Your task to perform on an android device: turn off priority inbox in the gmail app Image 0: 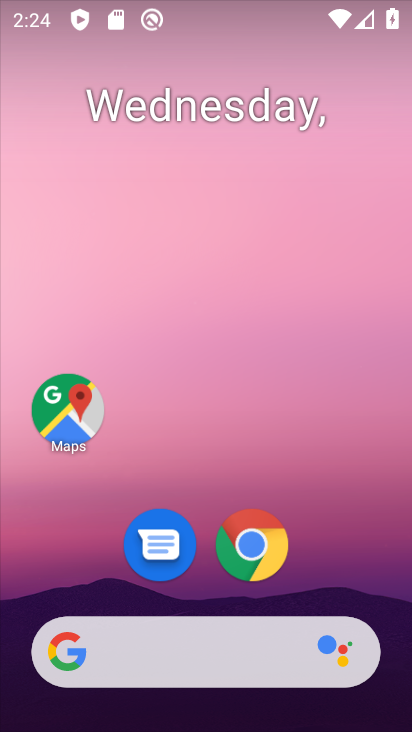
Step 0: press home button
Your task to perform on an android device: turn off priority inbox in the gmail app Image 1: 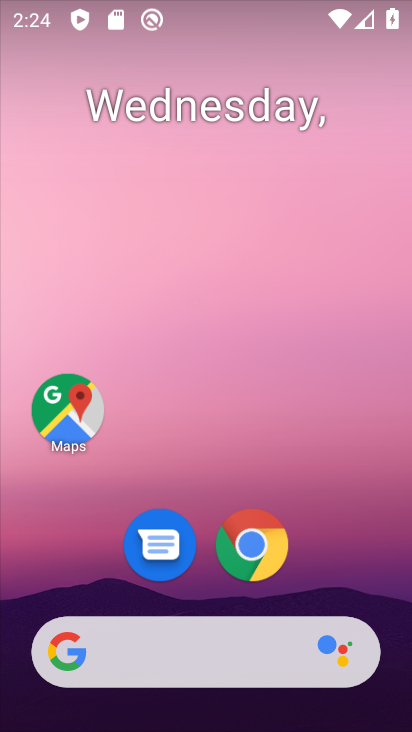
Step 1: drag from (143, 648) to (293, 157)
Your task to perform on an android device: turn off priority inbox in the gmail app Image 2: 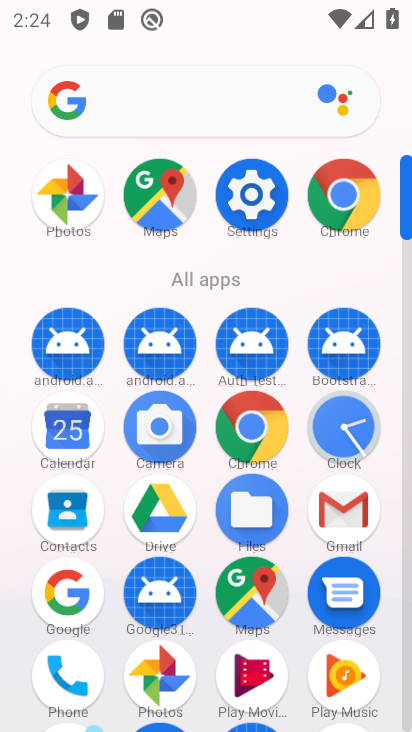
Step 2: click (346, 519)
Your task to perform on an android device: turn off priority inbox in the gmail app Image 3: 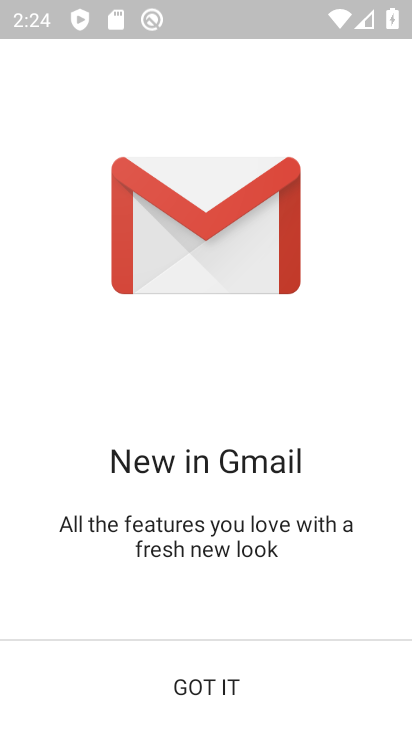
Step 3: click (202, 676)
Your task to perform on an android device: turn off priority inbox in the gmail app Image 4: 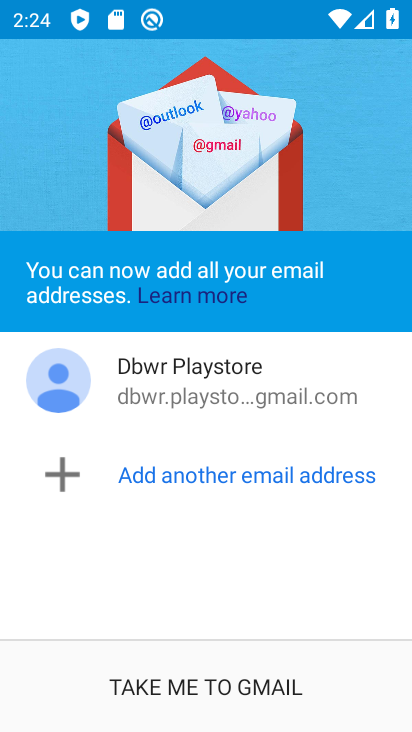
Step 4: click (202, 675)
Your task to perform on an android device: turn off priority inbox in the gmail app Image 5: 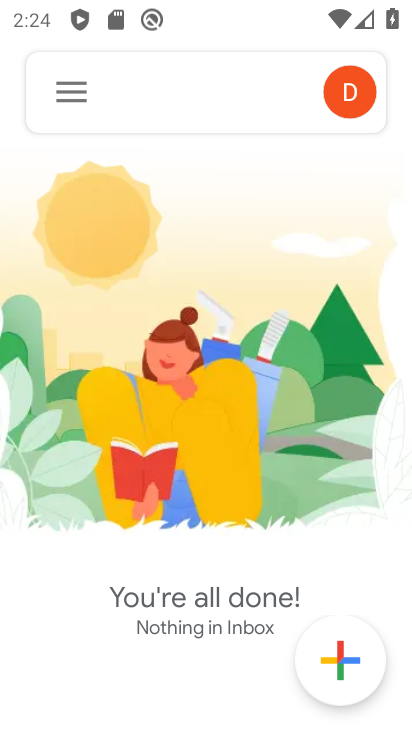
Step 5: click (67, 99)
Your task to perform on an android device: turn off priority inbox in the gmail app Image 6: 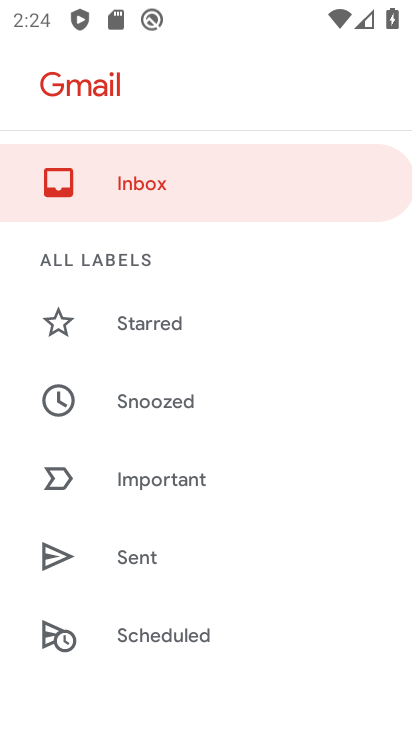
Step 6: drag from (229, 620) to (360, 166)
Your task to perform on an android device: turn off priority inbox in the gmail app Image 7: 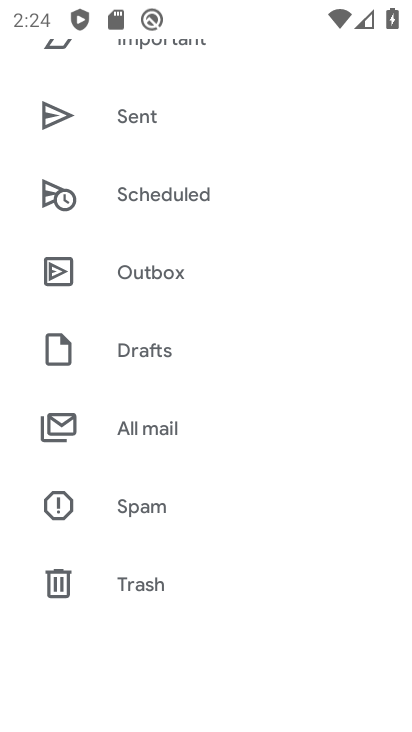
Step 7: drag from (189, 613) to (305, 204)
Your task to perform on an android device: turn off priority inbox in the gmail app Image 8: 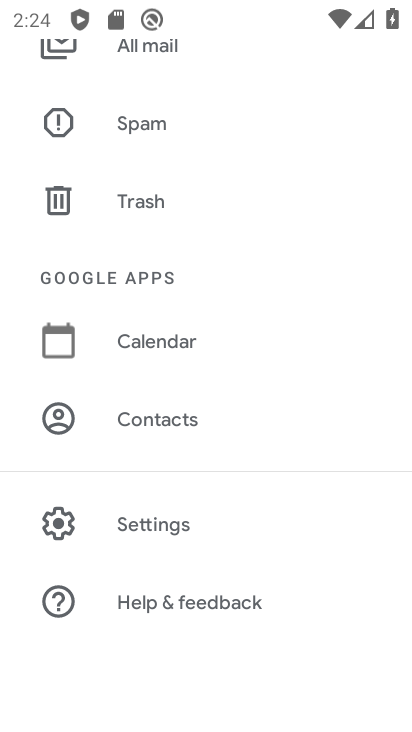
Step 8: click (149, 542)
Your task to perform on an android device: turn off priority inbox in the gmail app Image 9: 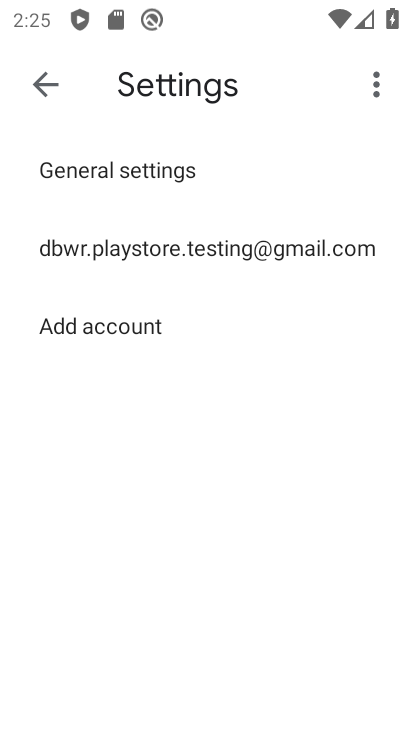
Step 9: click (275, 248)
Your task to perform on an android device: turn off priority inbox in the gmail app Image 10: 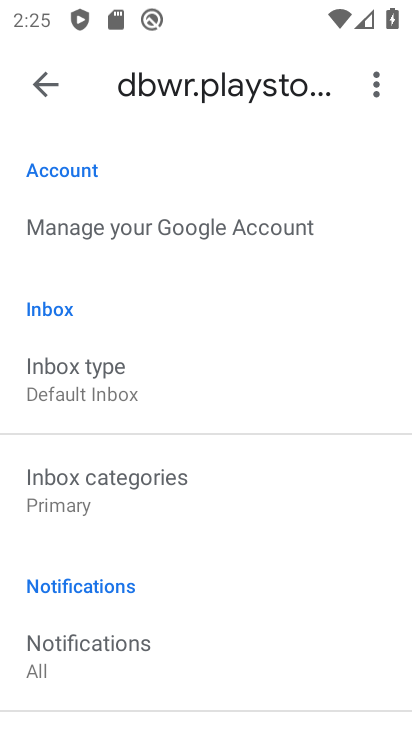
Step 10: click (103, 383)
Your task to perform on an android device: turn off priority inbox in the gmail app Image 11: 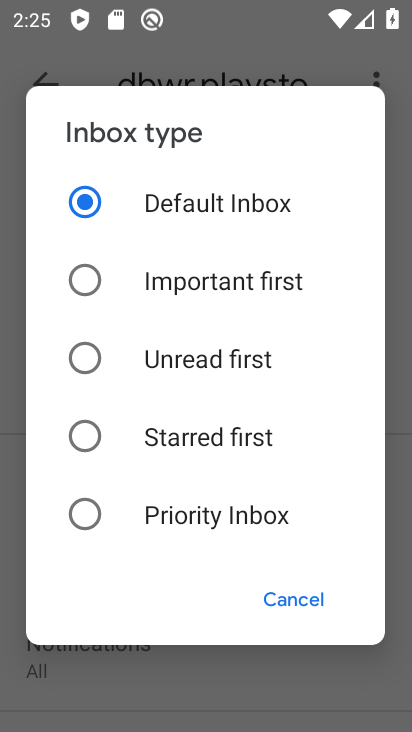
Step 11: task complete